Your task to perform on an android device: turn off location Image 0: 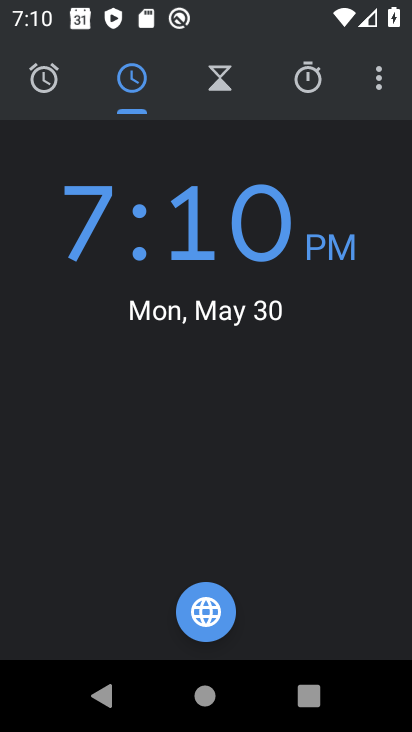
Step 0: press home button
Your task to perform on an android device: turn off location Image 1: 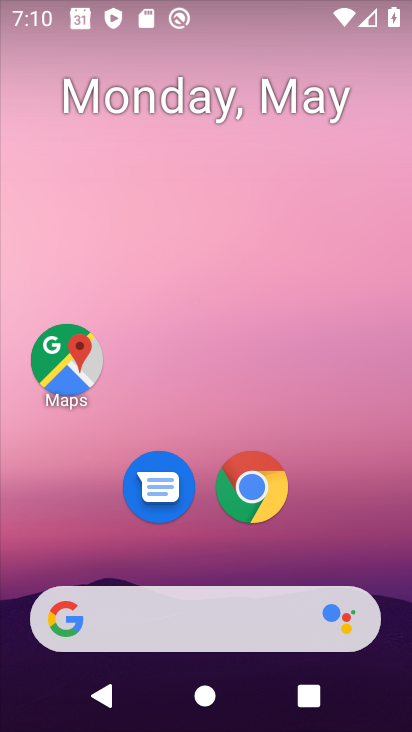
Step 1: drag from (260, 662) to (225, 6)
Your task to perform on an android device: turn off location Image 2: 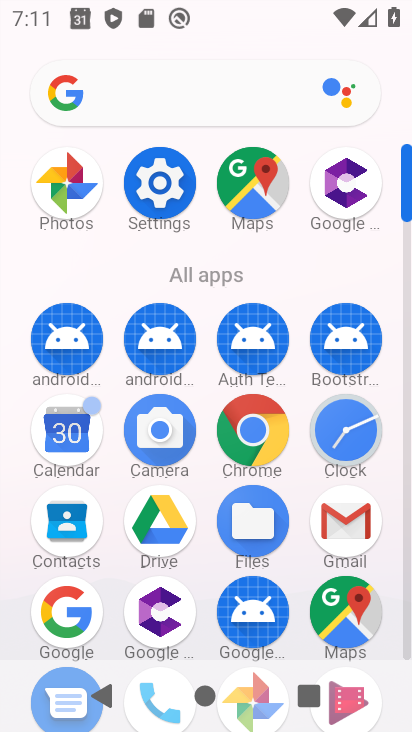
Step 2: click (152, 205)
Your task to perform on an android device: turn off location Image 3: 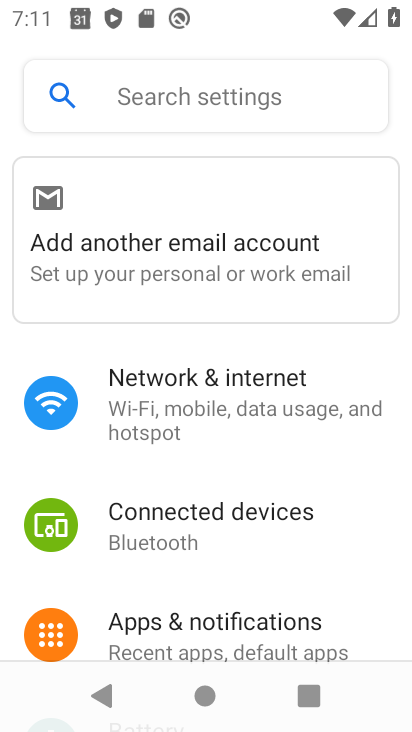
Step 3: click (205, 86)
Your task to perform on an android device: turn off location Image 4: 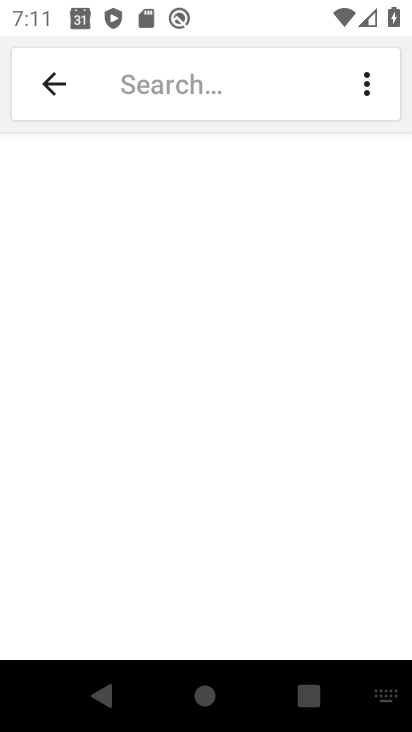
Step 4: click (376, 691)
Your task to perform on an android device: turn off location Image 5: 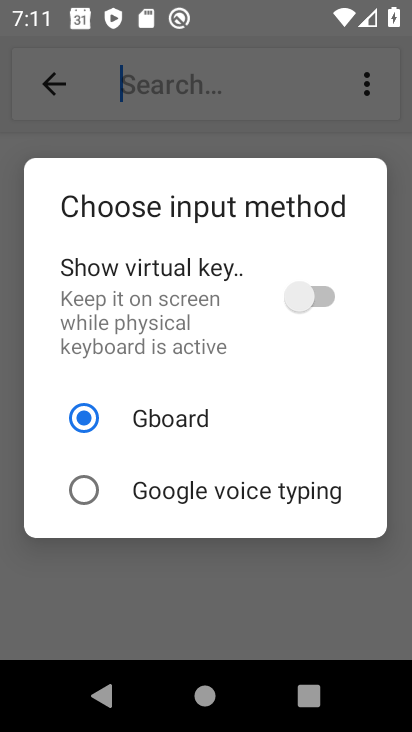
Step 5: click (307, 282)
Your task to perform on an android device: turn off location Image 6: 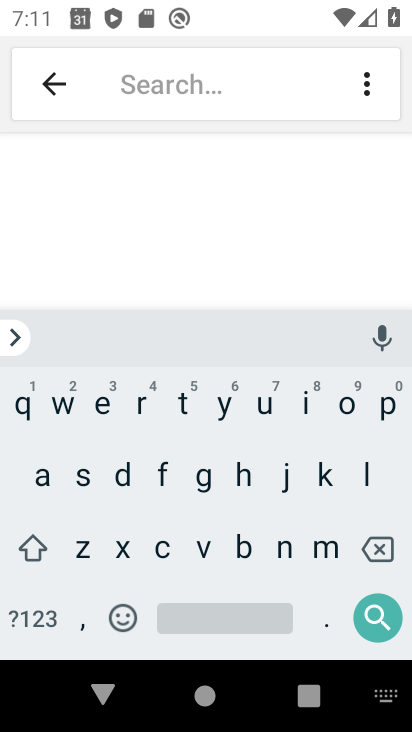
Step 6: click (169, 84)
Your task to perform on an android device: turn off location Image 7: 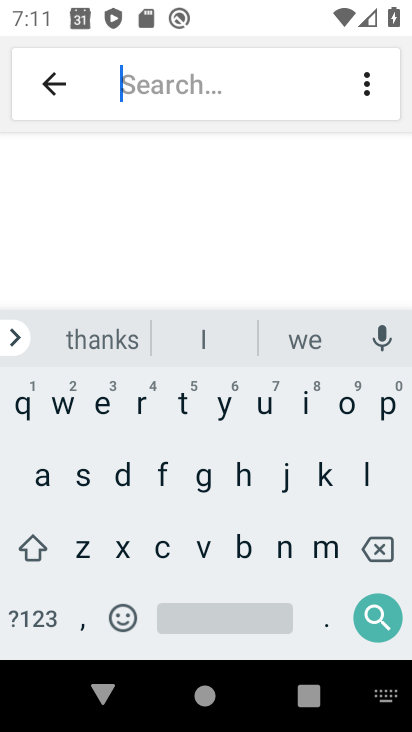
Step 7: click (370, 474)
Your task to perform on an android device: turn off location Image 8: 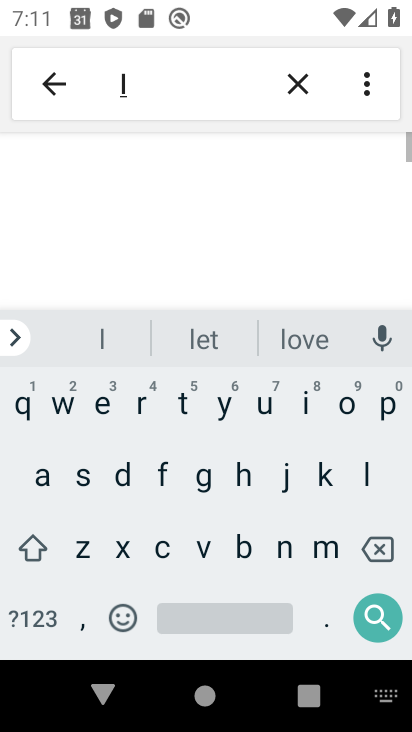
Step 8: click (349, 409)
Your task to perform on an android device: turn off location Image 9: 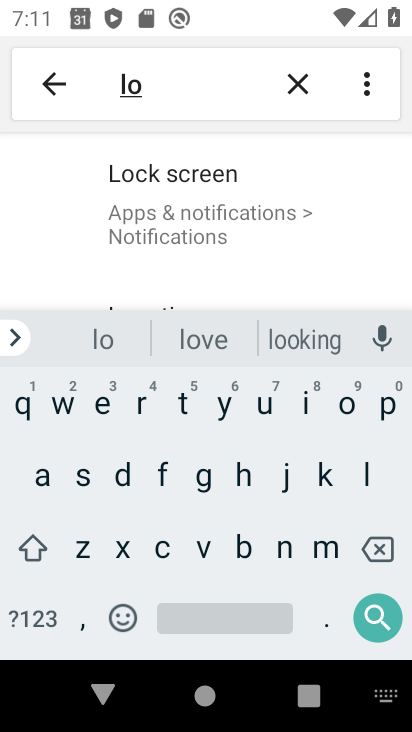
Step 9: click (151, 300)
Your task to perform on an android device: turn off location Image 10: 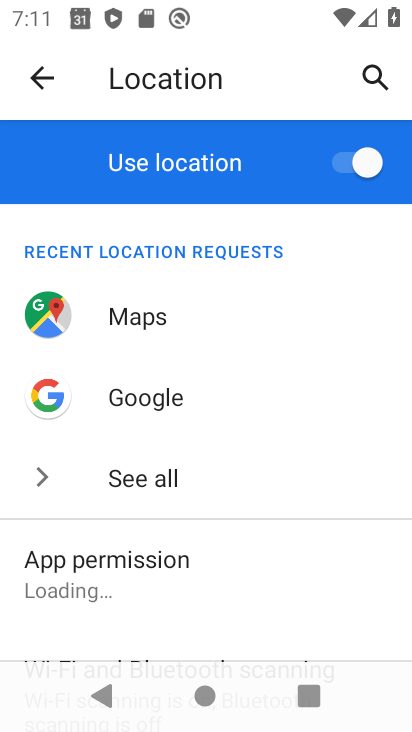
Step 10: click (338, 137)
Your task to perform on an android device: turn off location Image 11: 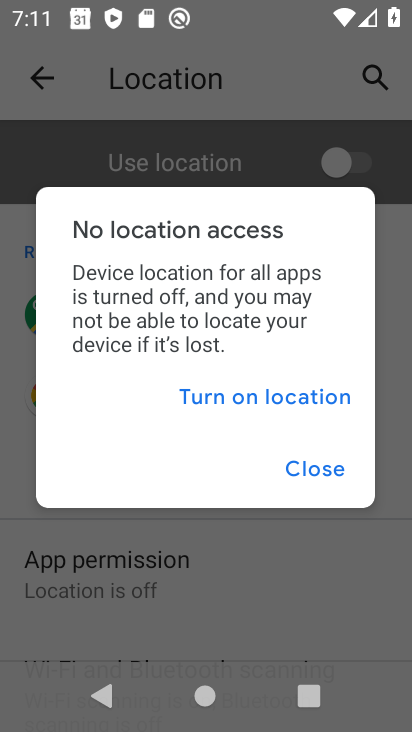
Step 11: task complete